Your task to perform on an android device: Open Google Chrome Image 0: 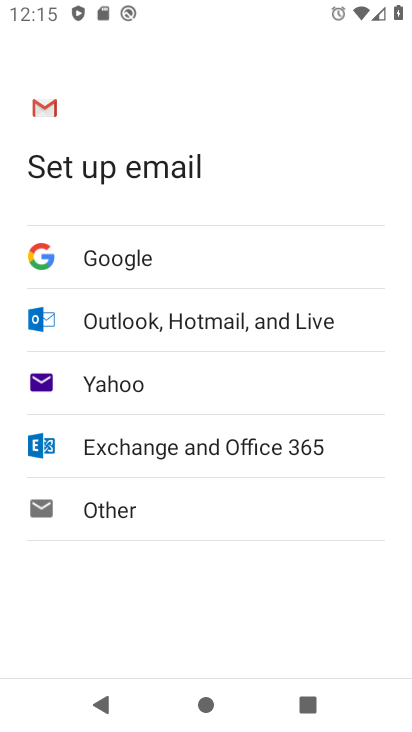
Step 0: press home button
Your task to perform on an android device: Open Google Chrome Image 1: 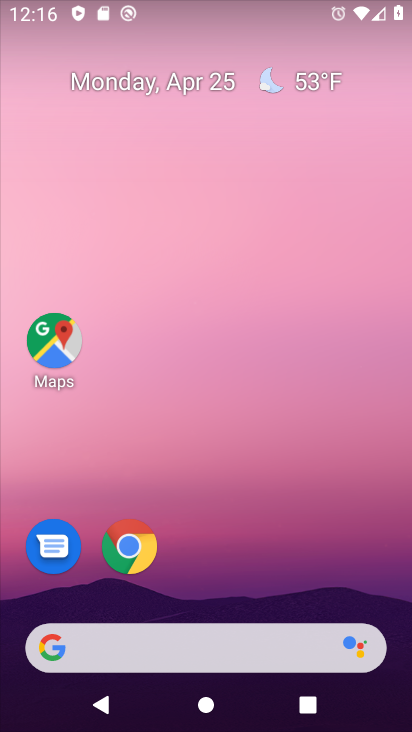
Step 1: click (142, 547)
Your task to perform on an android device: Open Google Chrome Image 2: 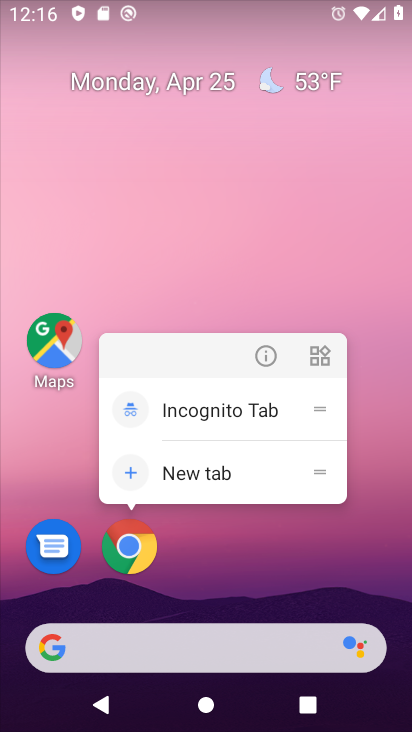
Step 2: click (128, 551)
Your task to perform on an android device: Open Google Chrome Image 3: 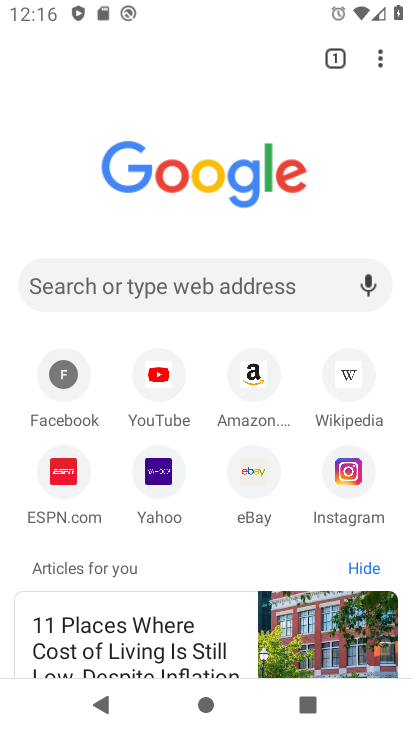
Step 3: task complete